Your task to perform on an android device: open a bookmark in the chrome app Image 0: 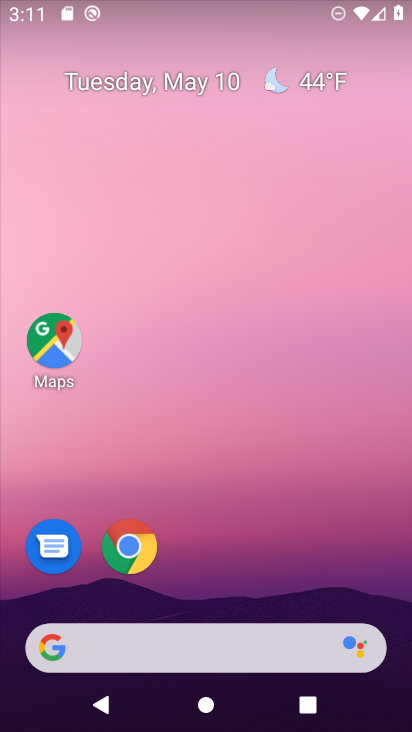
Step 0: drag from (224, 731) to (224, 356)
Your task to perform on an android device: open a bookmark in the chrome app Image 1: 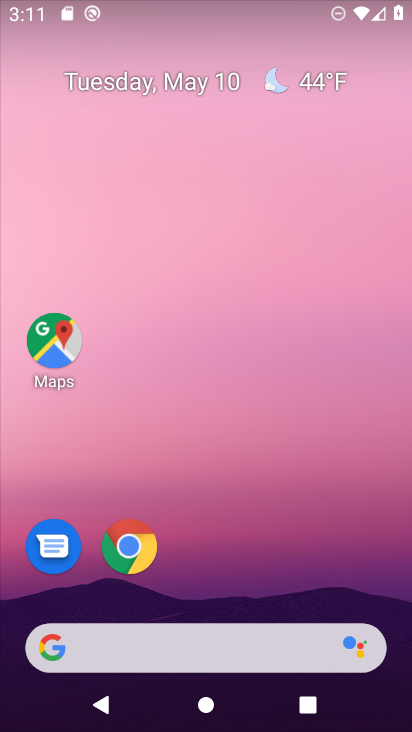
Step 1: drag from (202, 714) to (220, 330)
Your task to perform on an android device: open a bookmark in the chrome app Image 2: 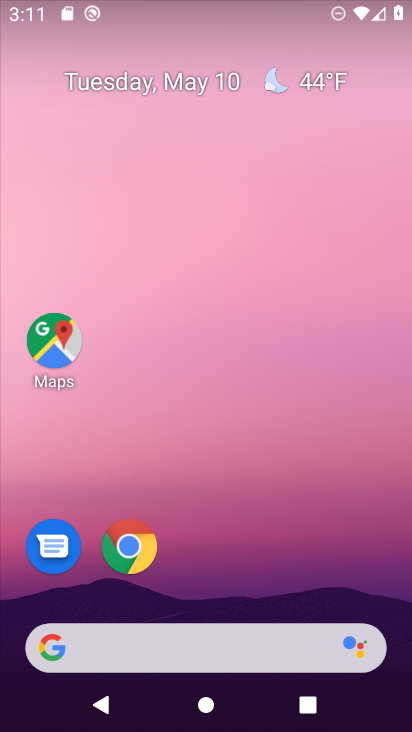
Step 2: drag from (212, 731) to (236, 270)
Your task to perform on an android device: open a bookmark in the chrome app Image 3: 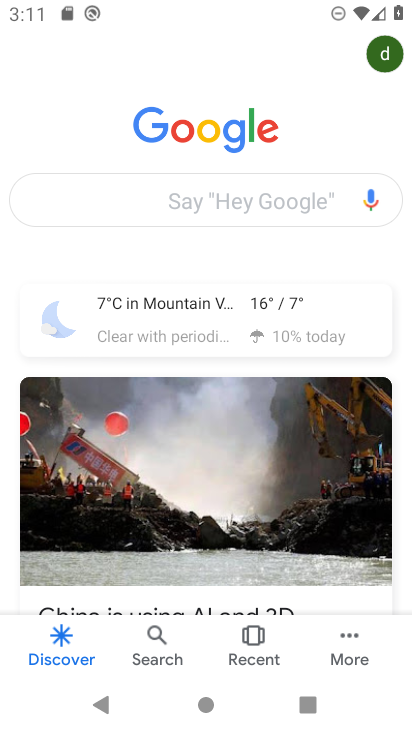
Step 3: press home button
Your task to perform on an android device: open a bookmark in the chrome app Image 4: 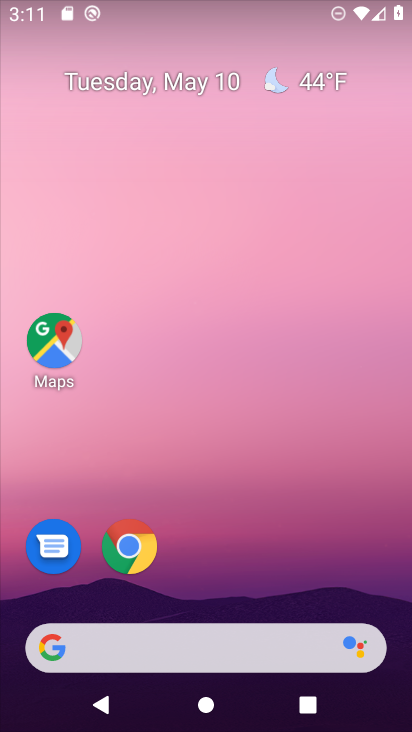
Step 4: drag from (169, 723) to (140, 225)
Your task to perform on an android device: open a bookmark in the chrome app Image 5: 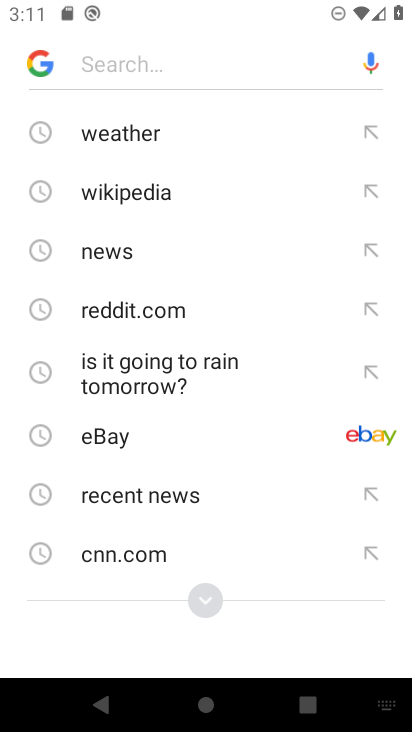
Step 5: press home button
Your task to perform on an android device: open a bookmark in the chrome app Image 6: 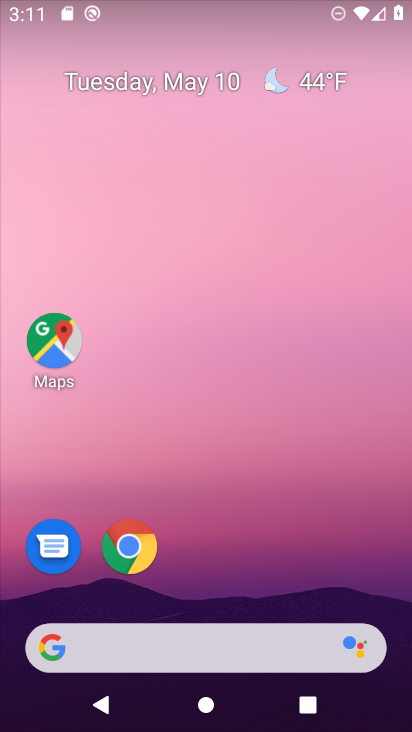
Step 6: click (274, 595)
Your task to perform on an android device: open a bookmark in the chrome app Image 7: 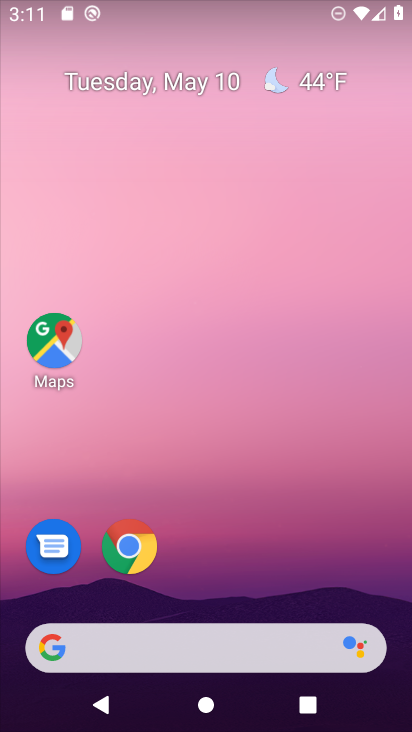
Step 7: drag from (358, 576) to (145, 2)
Your task to perform on an android device: open a bookmark in the chrome app Image 8: 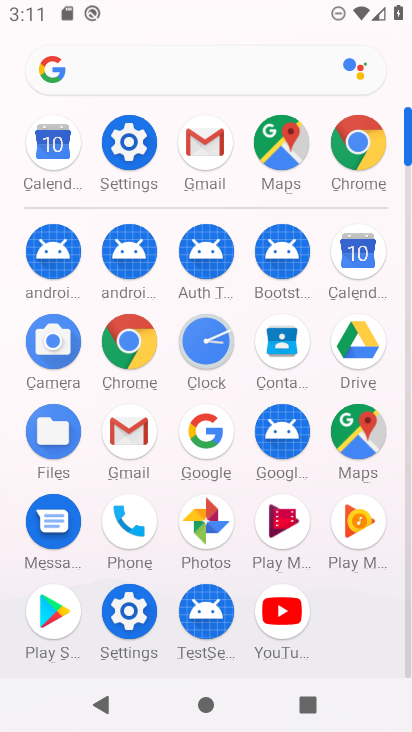
Step 8: click (128, 343)
Your task to perform on an android device: open a bookmark in the chrome app Image 9: 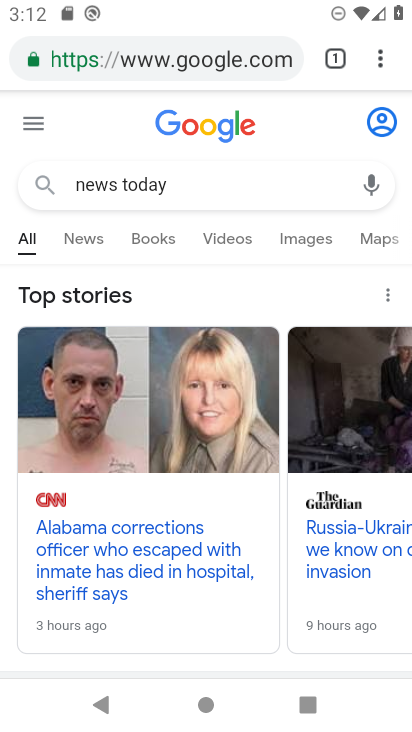
Step 9: click (378, 64)
Your task to perform on an android device: open a bookmark in the chrome app Image 10: 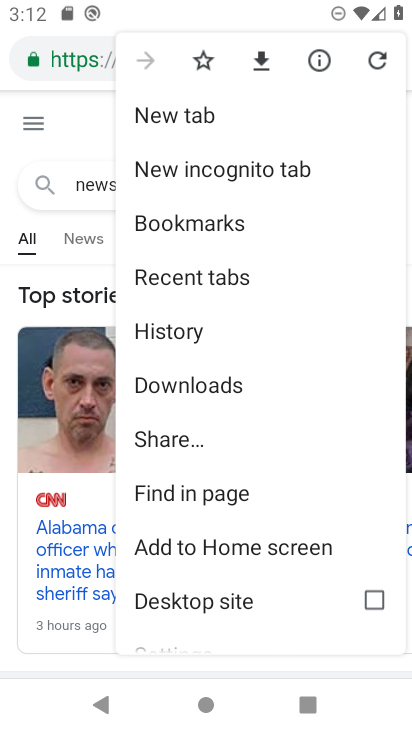
Step 10: click (232, 229)
Your task to perform on an android device: open a bookmark in the chrome app Image 11: 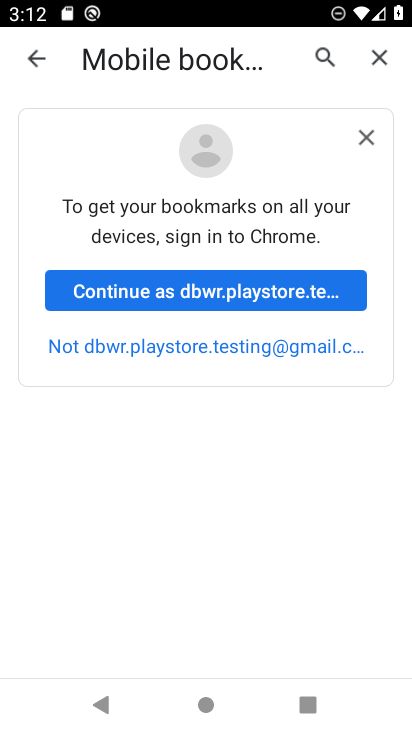
Step 11: task complete